Your task to perform on an android device: What's the weather? Image 0: 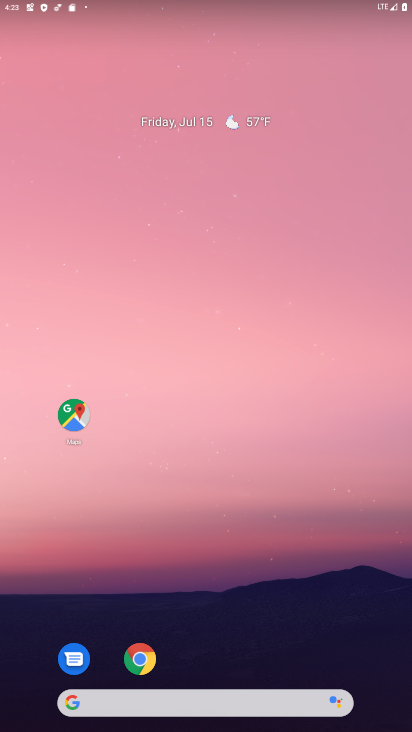
Step 0: drag from (271, 655) to (158, 115)
Your task to perform on an android device: What's the weather? Image 1: 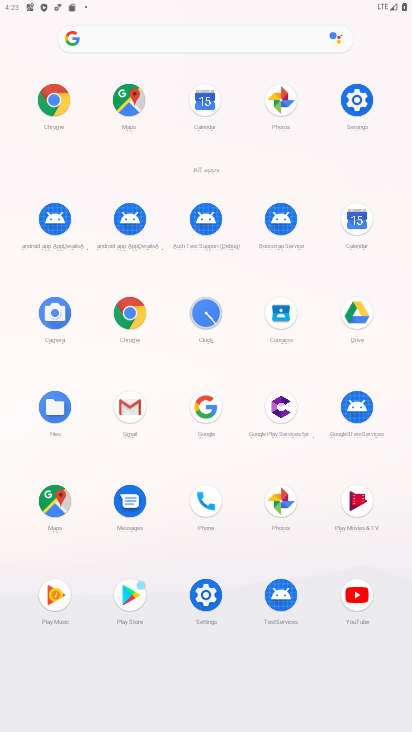
Step 1: click (47, 109)
Your task to perform on an android device: What's the weather? Image 2: 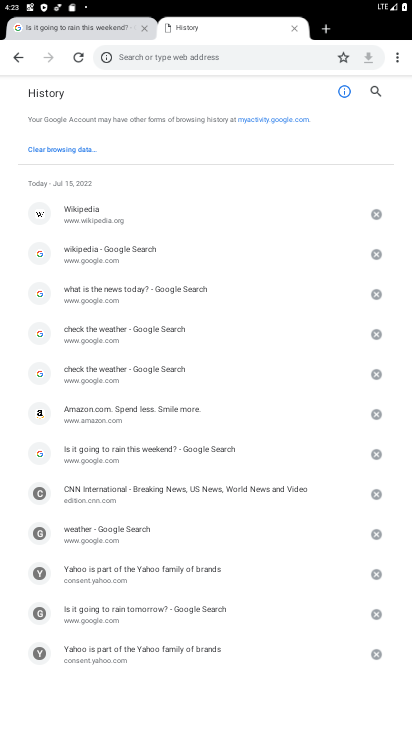
Step 2: click (146, 61)
Your task to perform on an android device: What's the weather? Image 3: 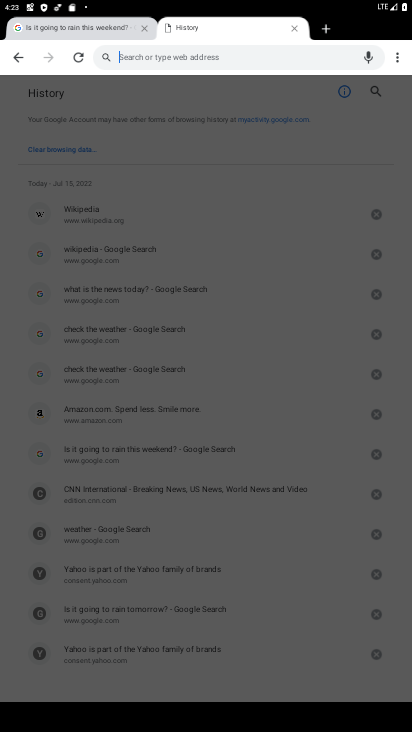
Step 3: click (185, 63)
Your task to perform on an android device: What's the weather? Image 4: 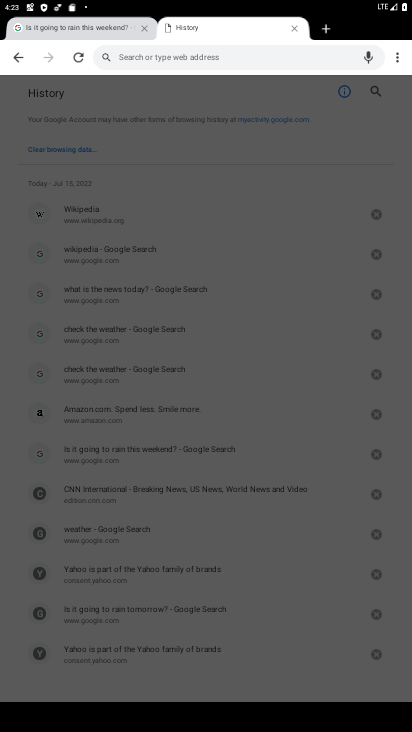
Step 4: type "What's the weather?"
Your task to perform on an android device: What's the weather? Image 5: 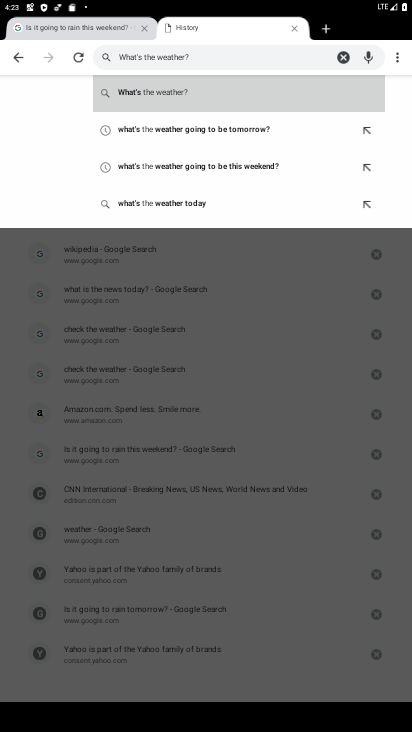
Step 5: click (244, 94)
Your task to perform on an android device: What's the weather? Image 6: 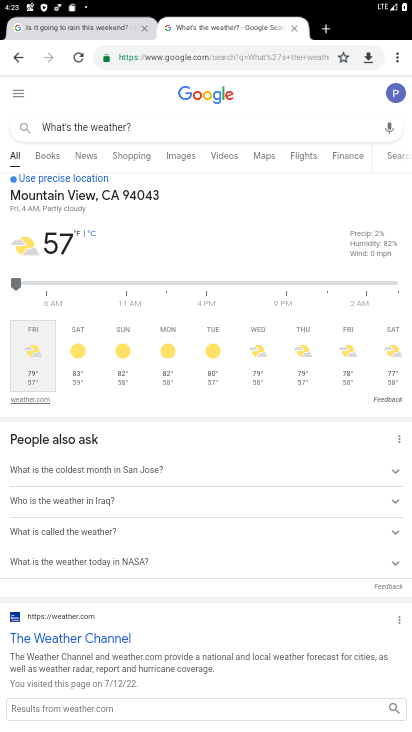
Step 6: task complete